Your task to perform on an android device: show emergency info Image 0: 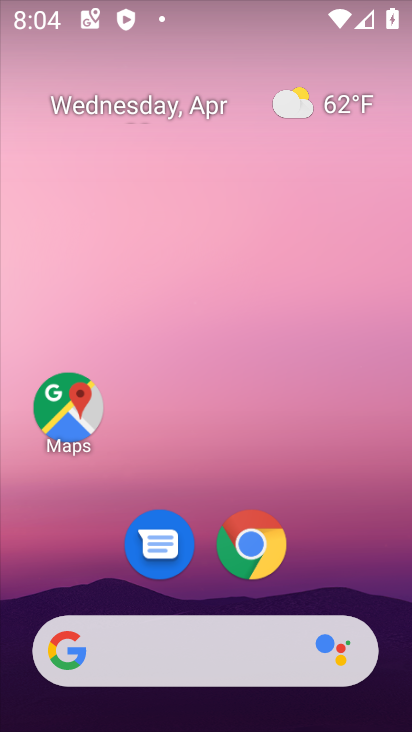
Step 0: drag from (335, 577) to (254, 173)
Your task to perform on an android device: show emergency info Image 1: 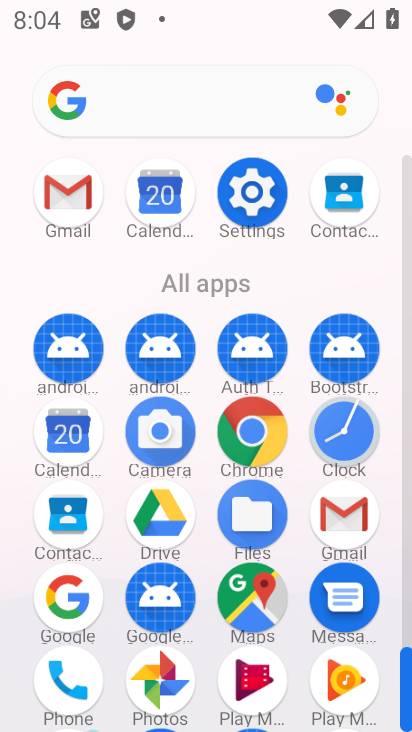
Step 1: click (247, 191)
Your task to perform on an android device: show emergency info Image 2: 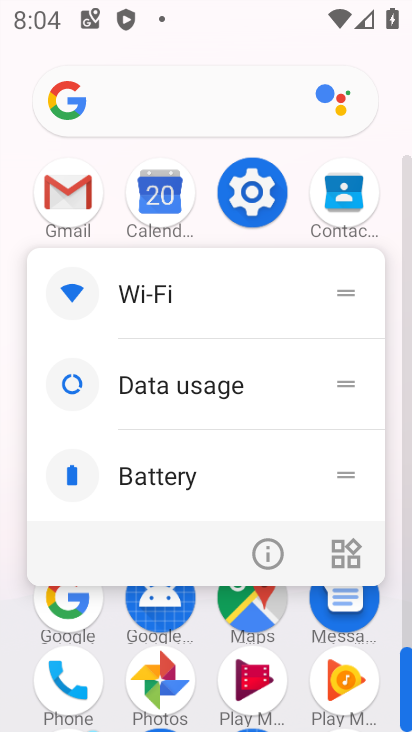
Step 2: click (252, 194)
Your task to perform on an android device: show emergency info Image 3: 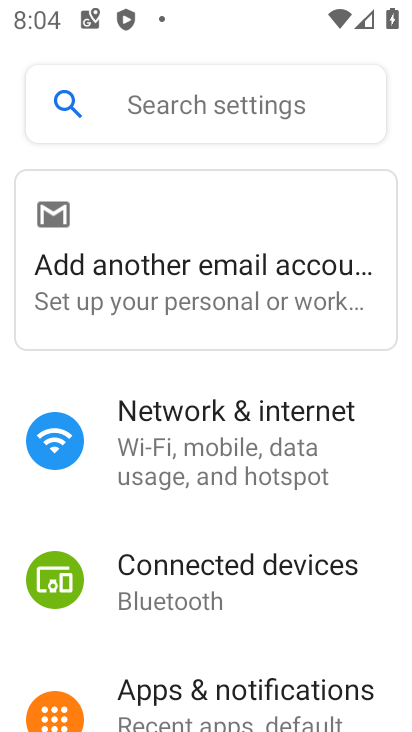
Step 3: drag from (214, 668) to (269, 321)
Your task to perform on an android device: show emergency info Image 4: 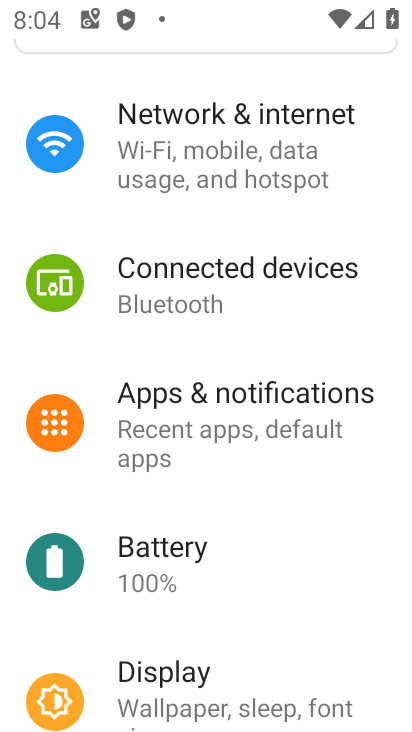
Step 4: drag from (246, 529) to (226, 132)
Your task to perform on an android device: show emergency info Image 5: 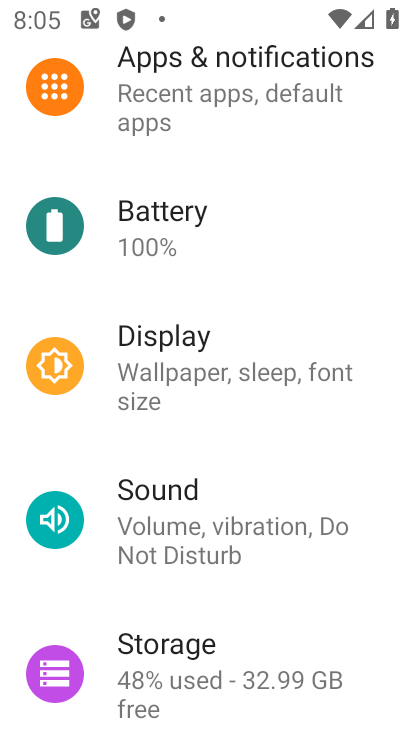
Step 5: drag from (225, 670) to (241, 204)
Your task to perform on an android device: show emergency info Image 6: 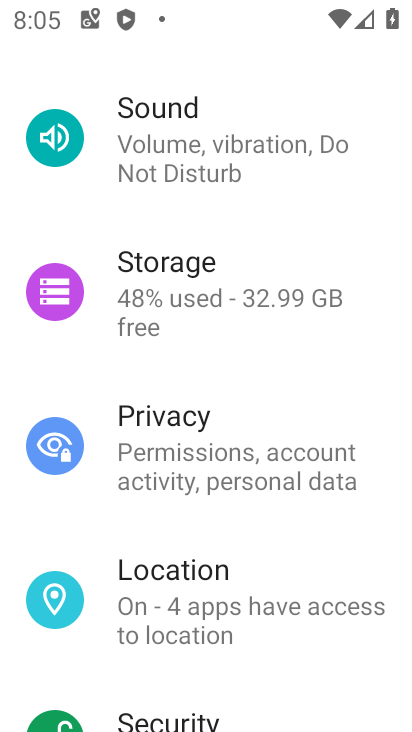
Step 6: drag from (225, 646) to (241, 199)
Your task to perform on an android device: show emergency info Image 7: 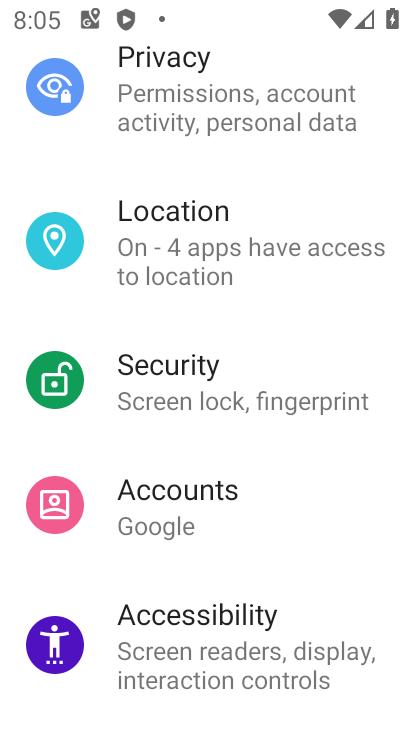
Step 7: drag from (291, 685) to (302, 193)
Your task to perform on an android device: show emergency info Image 8: 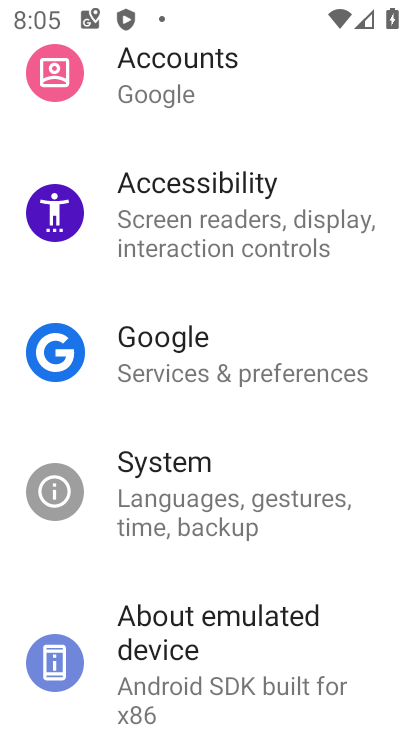
Step 8: drag from (260, 605) to (260, 393)
Your task to perform on an android device: show emergency info Image 9: 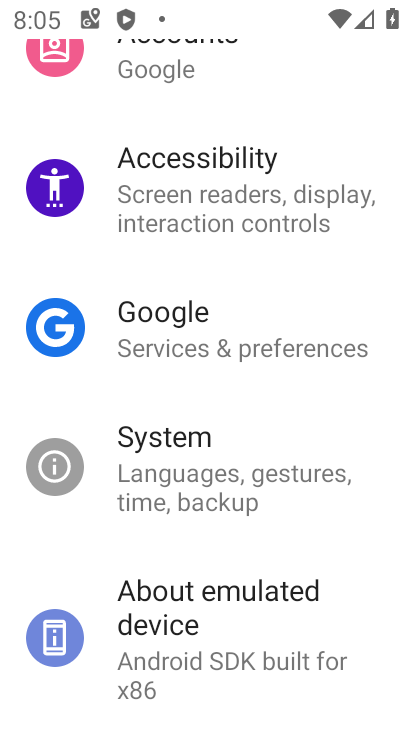
Step 9: click (184, 647)
Your task to perform on an android device: show emergency info Image 10: 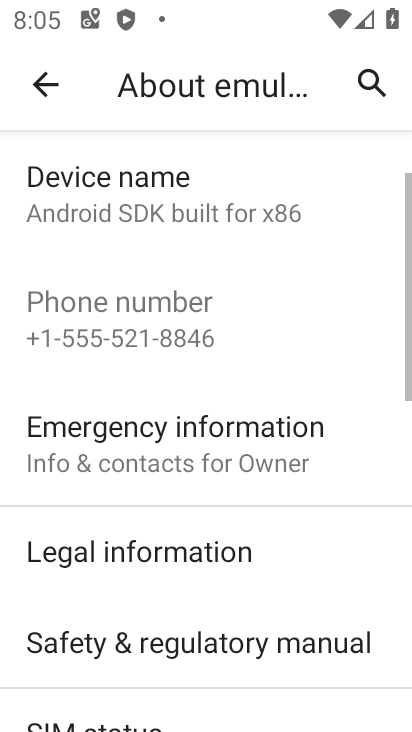
Step 10: click (176, 447)
Your task to perform on an android device: show emergency info Image 11: 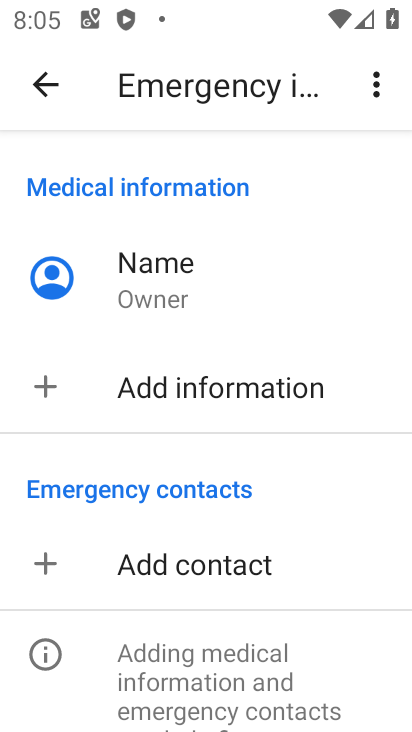
Step 11: task complete